Your task to perform on an android device: check storage Image 0: 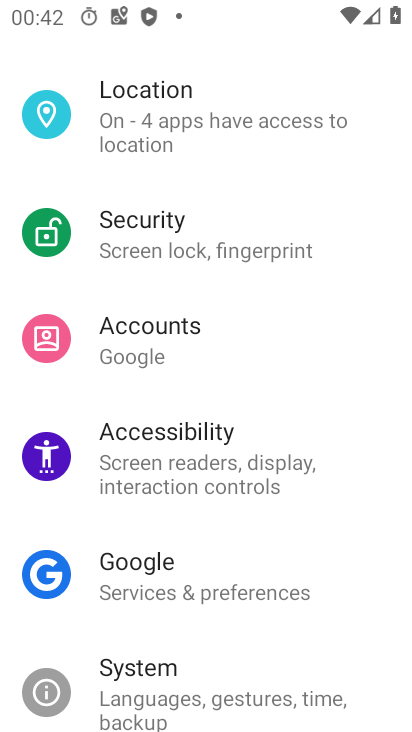
Step 0: press home button
Your task to perform on an android device: check storage Image 1: 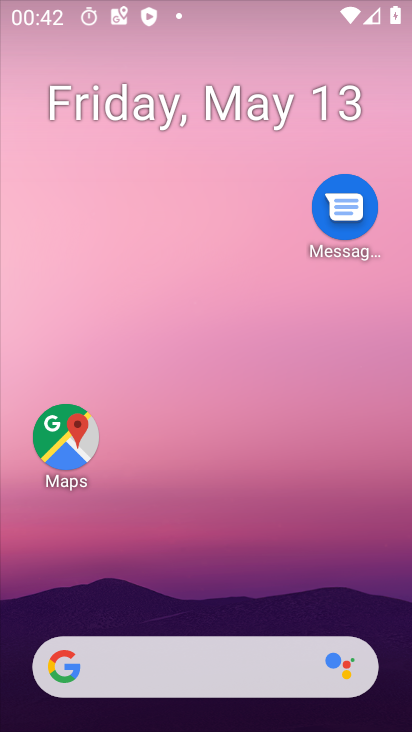
Step 1: drag from (238, 609) to (245, 10)
Your task to perform on an android device: check storage Image 2: 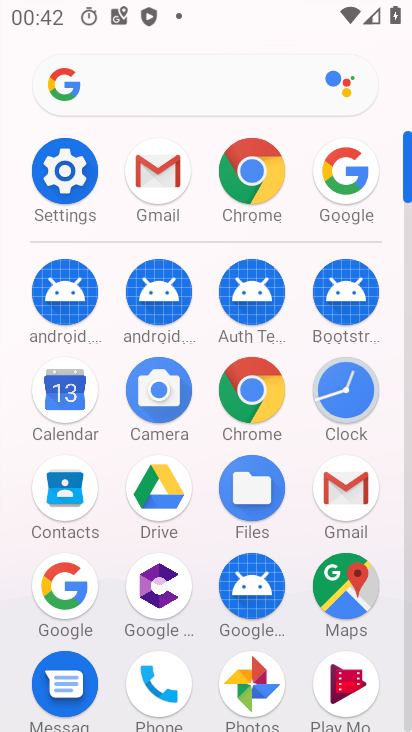
Step 2: click (84, 200)
Your task to perform on an android device: check storage Image 3: 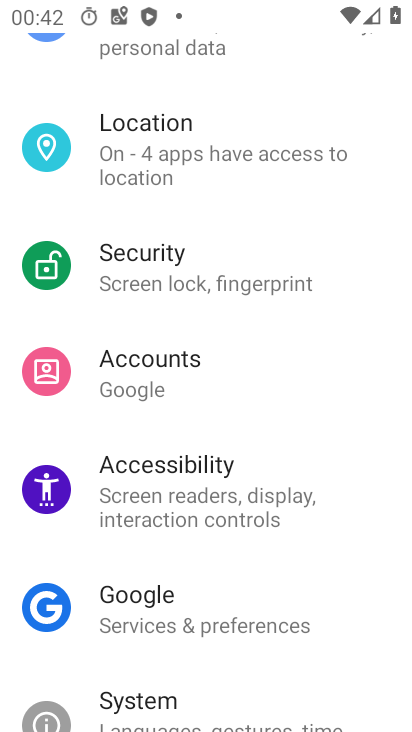
Step 3: drag from (259, 239) to (264, 724)
Your task to perform on an android device: check storage Image 4: 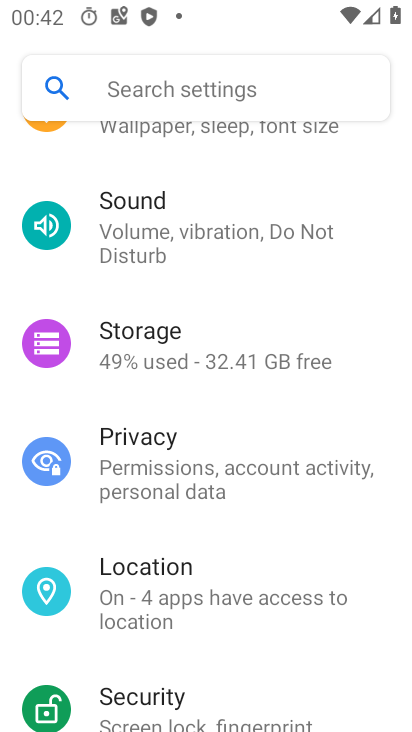
Step 4: drag from (98, 195) to (163, 621)
Your task to perform on an android device: check storage Image 5: 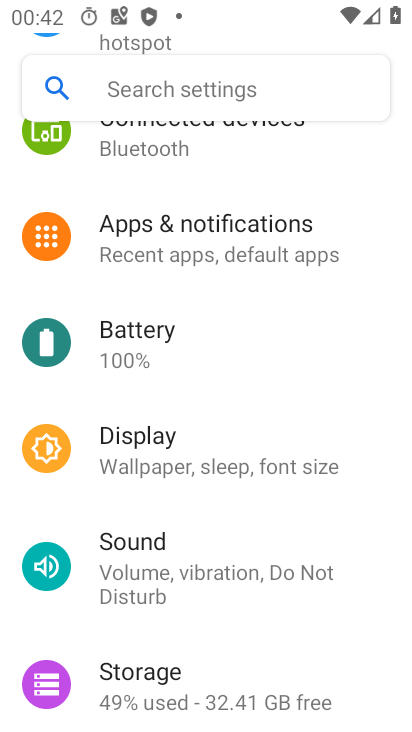
Step 5: click (172, 653)
Your task to perform on an android device: check storage Image 6: 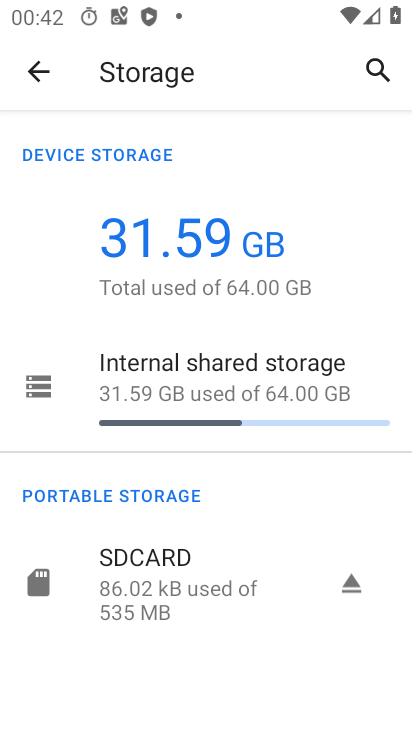
Step 6: task complete